Your task to perform on an android device: change notifications settings Image 0: 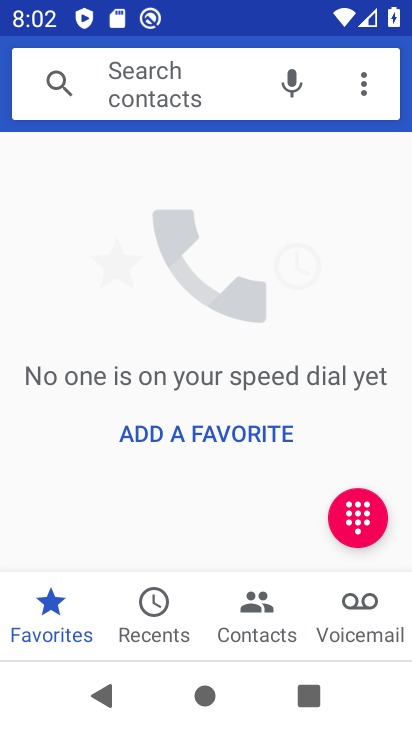
Step 0: press home button
Your task to perform on an android device: change notifications settings Image 1: 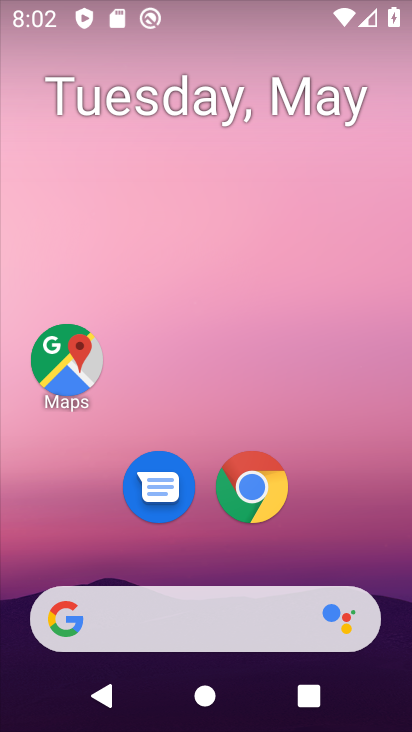
Step 1: drag from (357, 562) to (288, 131)
Your task to perform on an android device: change notifications settings Image 2: 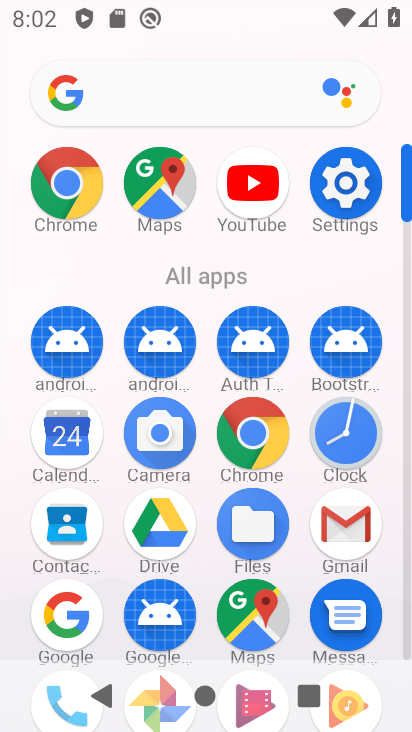
Step 2: click (337, 182)
Your task to perform on an android device: change notifications settings Image 3: 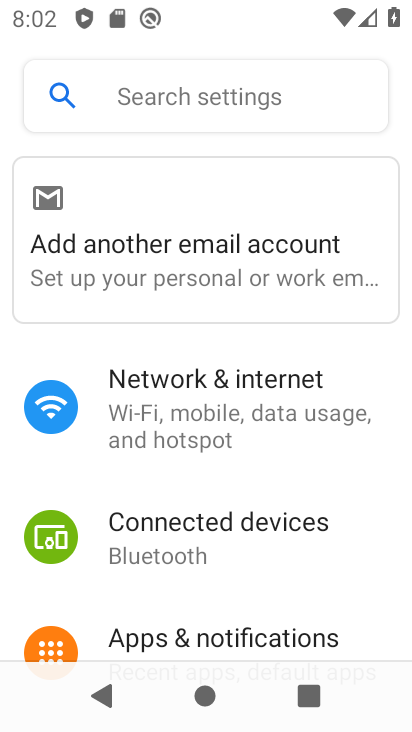
Step 3: drag from (189, 476) to (110, 36)
Your task to perform on an android device: change notifications settings Image 4: 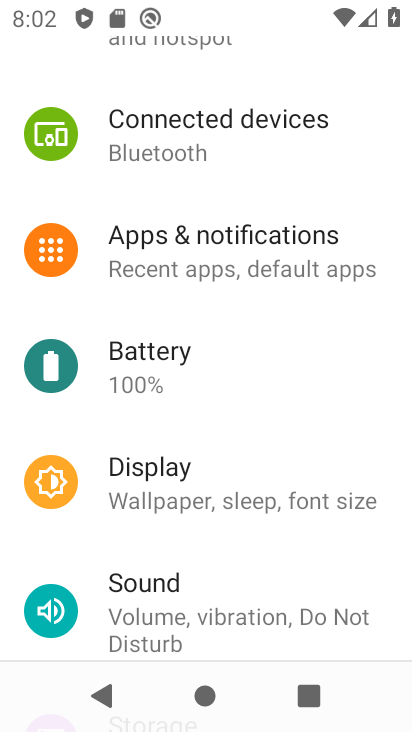
Step 4: click (199, 245)
Your task to perform on an android device: change notifications settings Image 5: 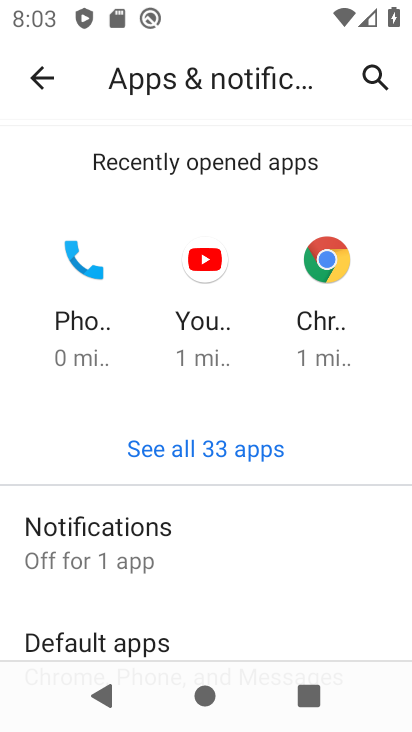
Step 5: click (139, 519)
Your task to perform on an android device: change notifications settings Image 6: 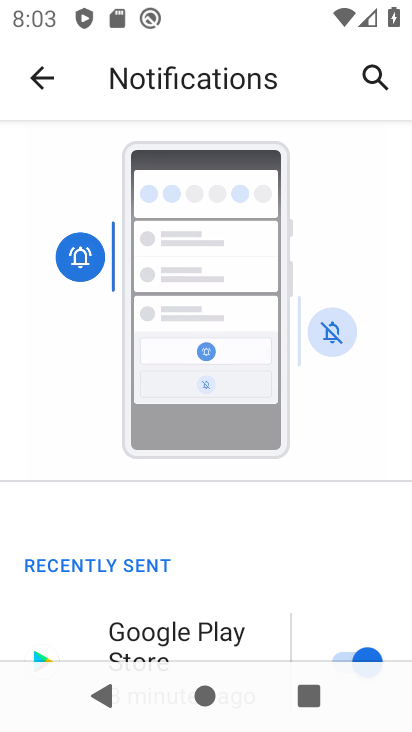
Step 6: drag from (260, 555) to (180, 257)
Your task to perform on an android device: change notifications settings Image 7: 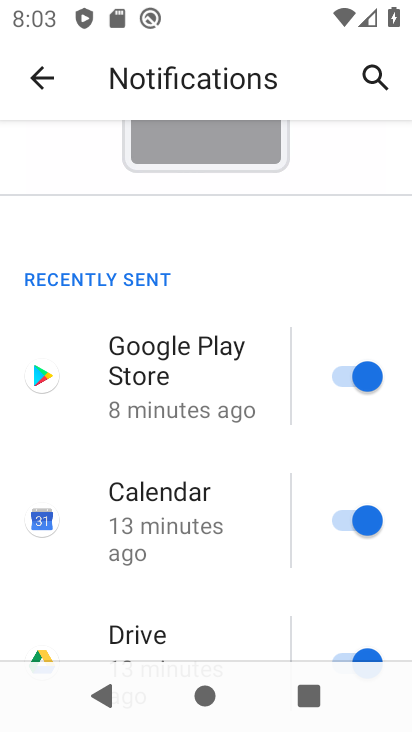
Step 7: drag from (285, 583) to (199, 248)
Your task to perform on an android device: change notifications settings Image 8: 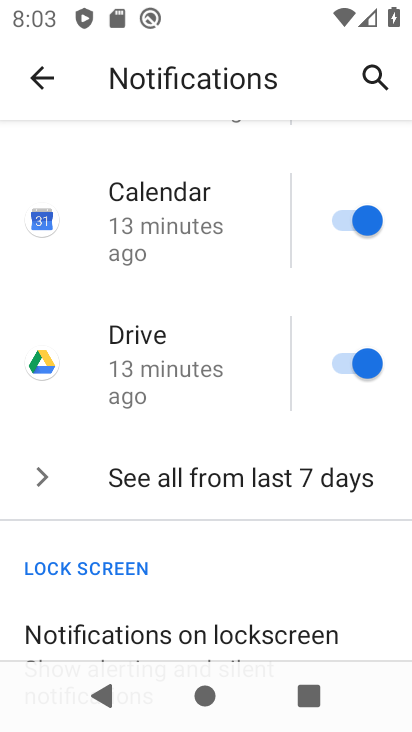
Step 8: drag from (280, 596) to (238, 388)
Your task to perform on an android device: change notifications settings Image 9: 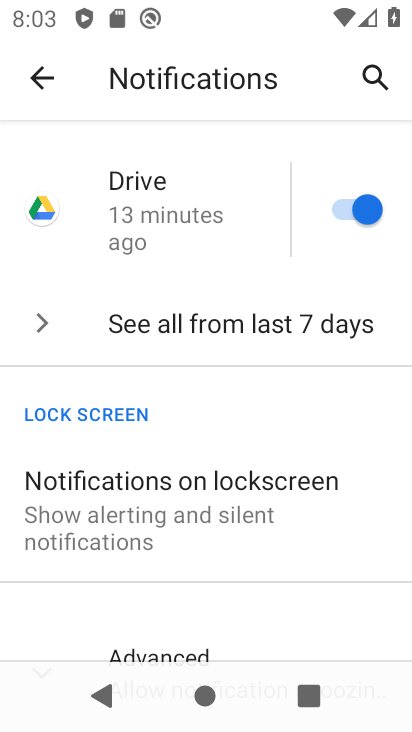
Step 9: click (244, 504)
Your task to perform on an android device: change notifications settings Image 10: 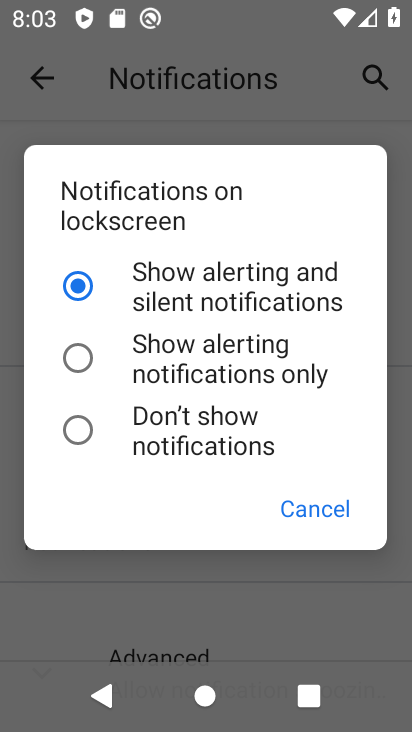
Step 10: click (233, 415)
Your task to perform on an android device: change notifications settings Image 11: 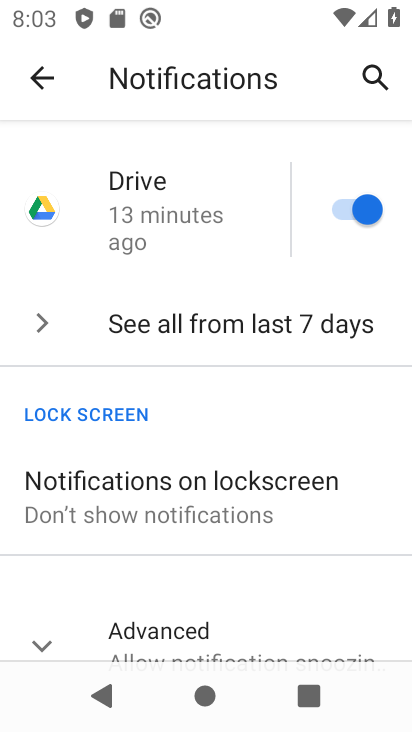
Step 11: task complete